Your task to perform on an android device: Open CNN.com Image 0: 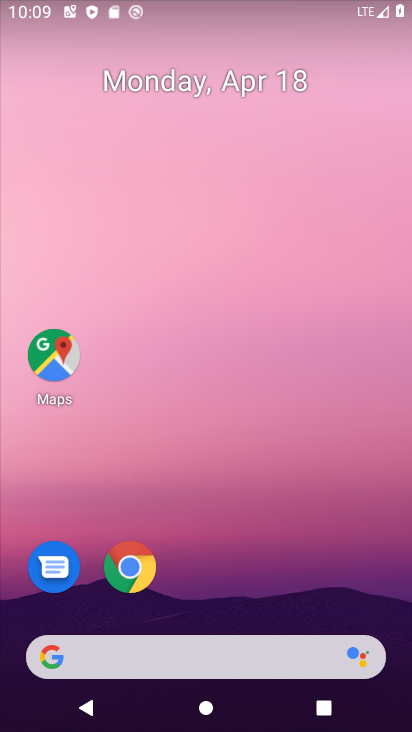
Step 0: press home button
Your task to perform on an android device: Open CNN.com Image 1: 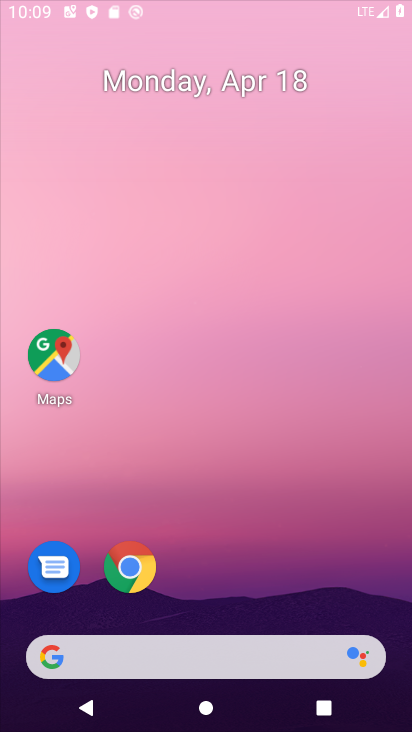
Step 1: drag from (296, 525) to (323, 153)
Your task to perform on an android device: Open CNN.com Image 2: 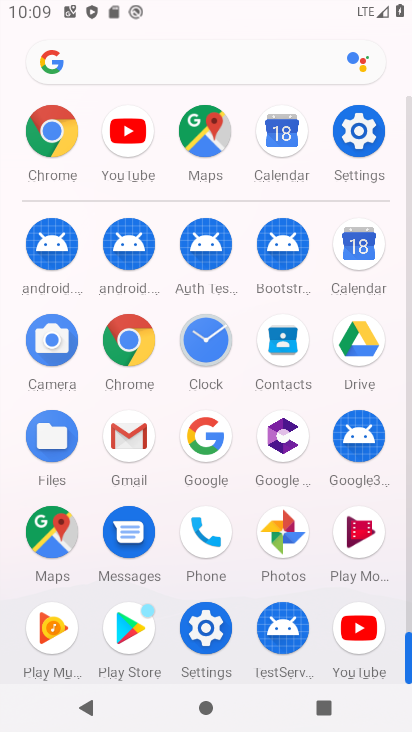
Step 2: click (133, 338)
Your task to perform on an android device: Open CNN.com Image 3: 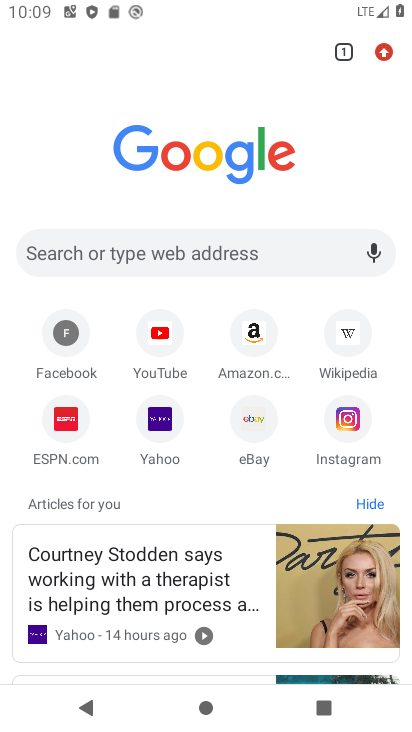
Step 3: click (142, 259)
Your task to perform on an android device: Open CNN.com Image 4: 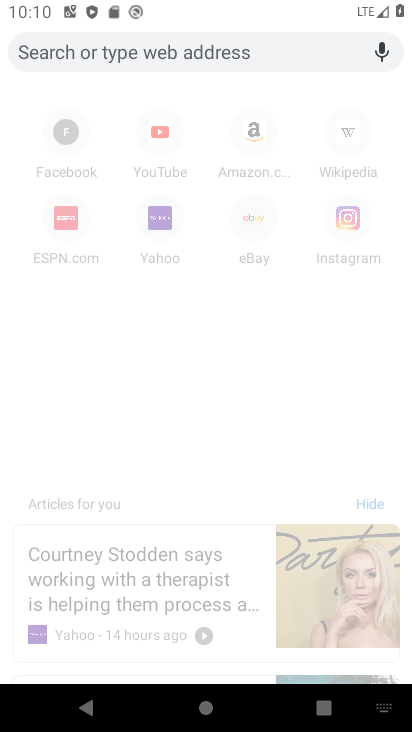
Step 4: type "cnn.com"
Your task to perform on an android device: Open CNN.com Image 5: 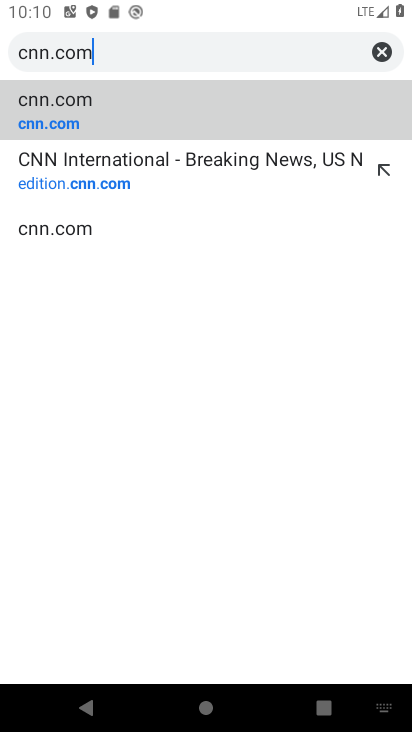
Step 5: click (89, 100)
Your task to perform on an android device: Open CNN.com Image 6: 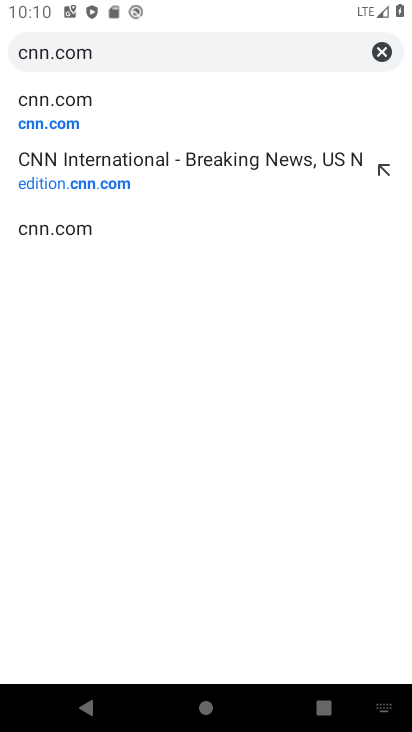
Step 6: click (88, 173)
Your task to perform on an android device: Open CNN.com Image 7: 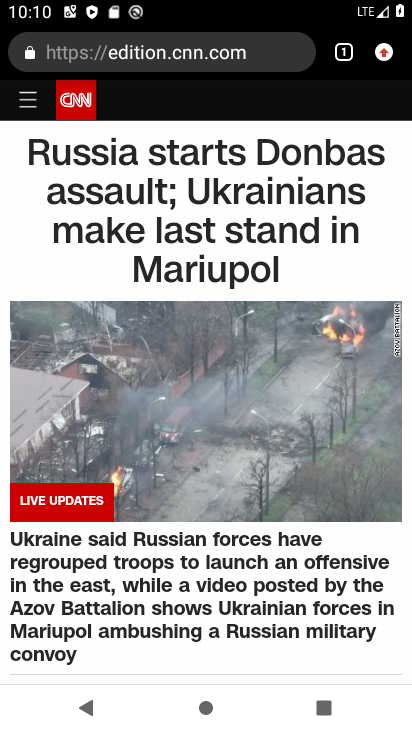
Step 7: task complete